Your task to perform on an android device: create a new album in the google photos Image 0: 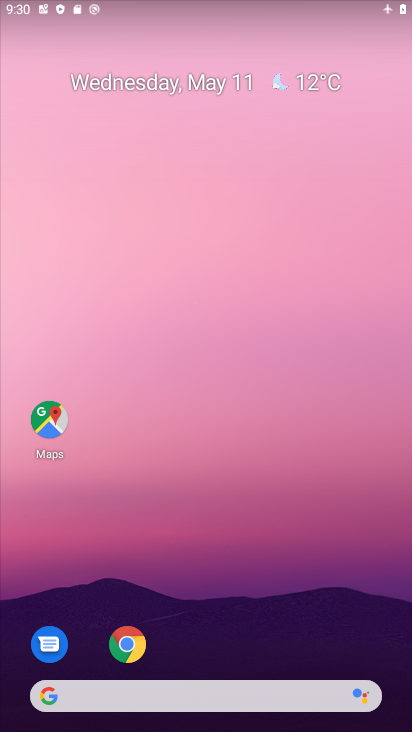
Step 0: drag from (205, 648) to (192, 186)
Your task to perform on an android device: create a new album in the google photos Image 1: 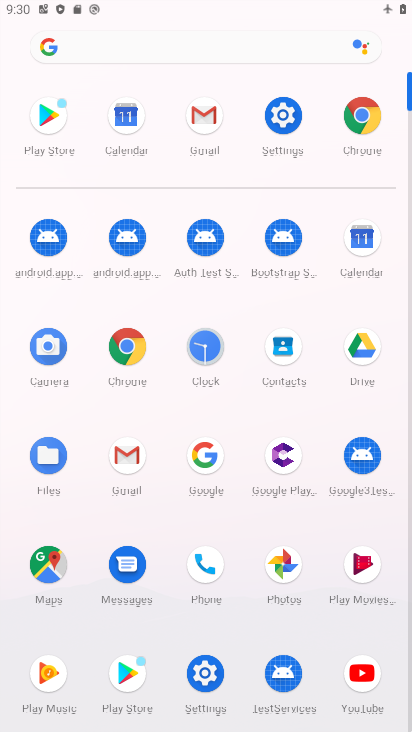
Step 1: click (284, 568)
Your task to perform on an android device: create a new album in the google photos Image 2: 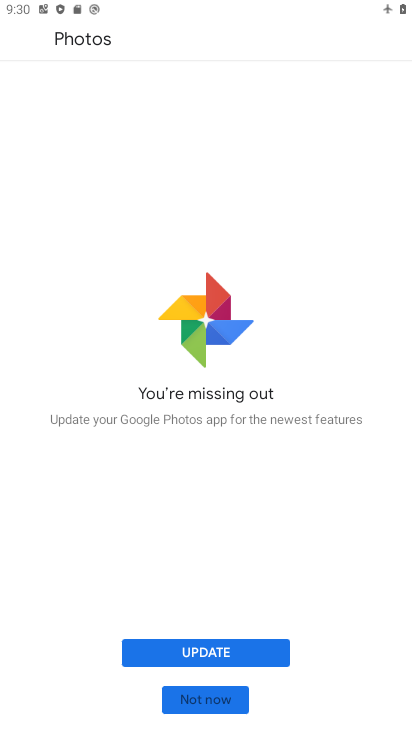
Step 2: click (205, 701)
Your task to perform on an android device: create a new album in the google photos Image 3: 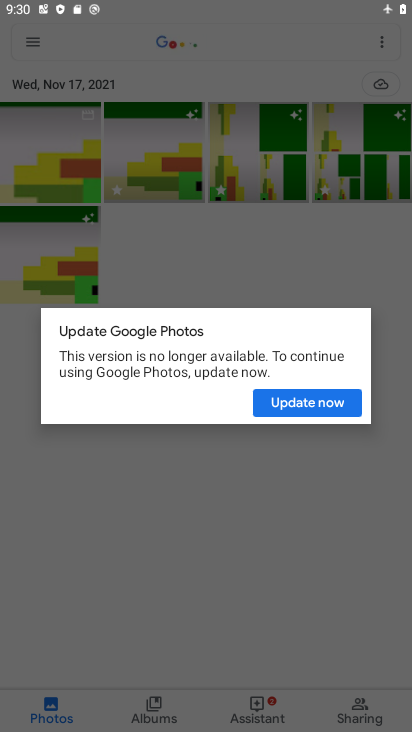
Step 3: click (321, 408)
Your task to perform on an android device: create a new album in the google photos Image 4: 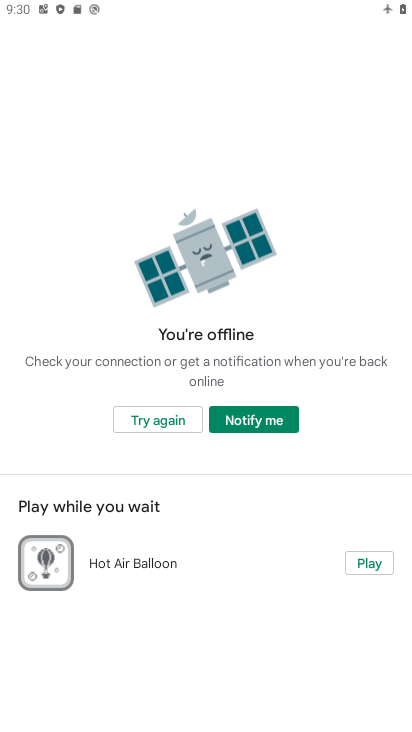
Step 4: press back button
Your task to perform on an android device: create a new album in the google photos Image 5: 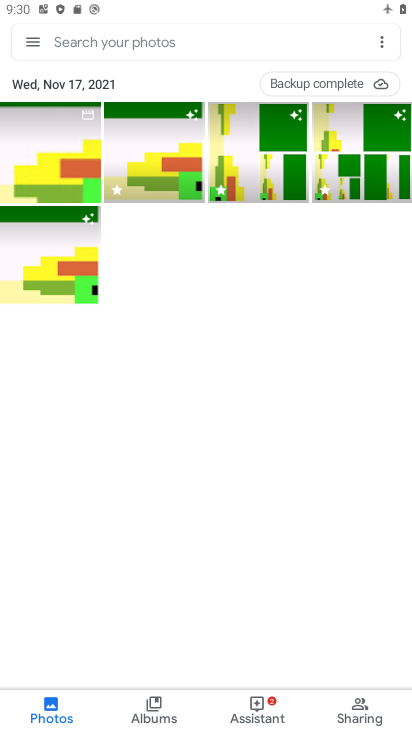
Step 5: click (151, 705)
Your task to perform on an android device: create a new album in the google photos Image 6: 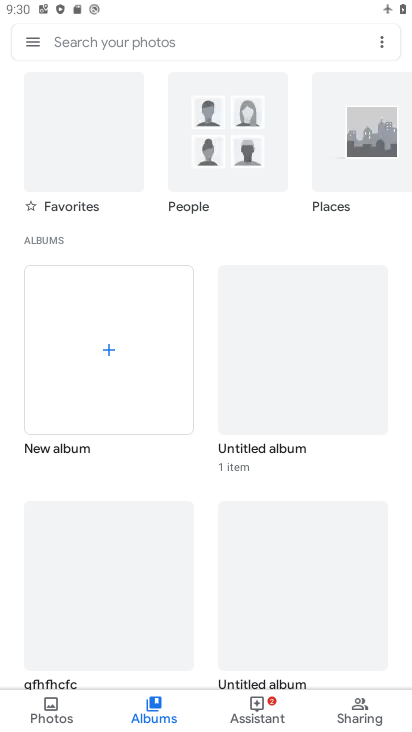
Step 6: click (113, 348)
Your task to perform on an android device: create a new album in the google photos Image 7: 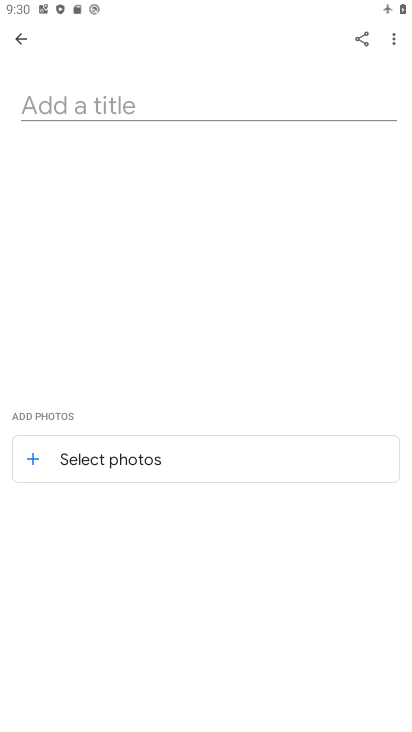
Step 7: click (101, 462)
Your task to perform on an android device: create a new album in the google photos Image 8: 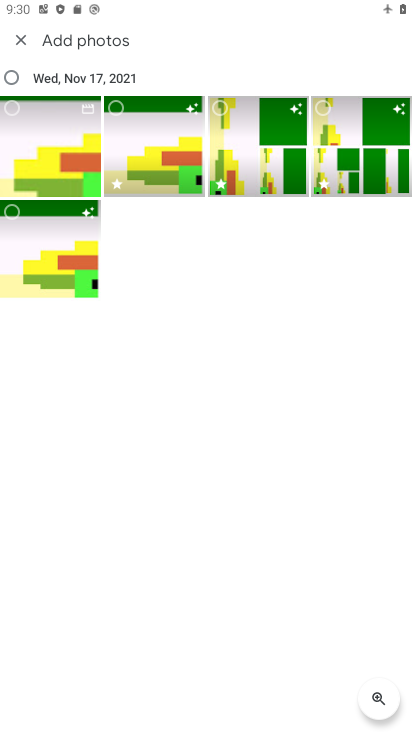
Step 8: click (21, 75)
Your task to perform on an android device: create a new album in the google photos Image 9: 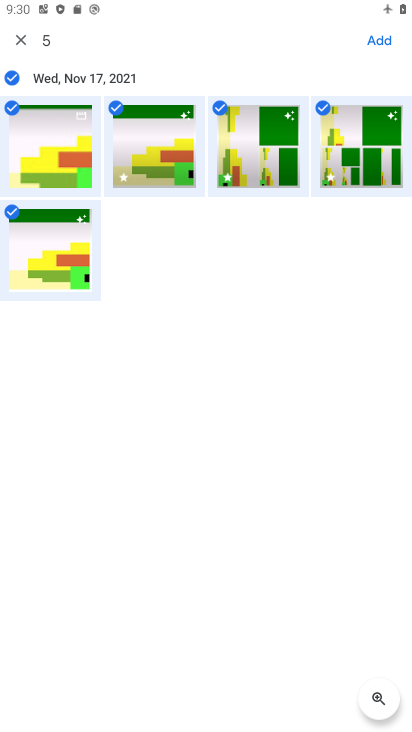
Step 9: click (389, 32)
Your task to perform on an android device: create a new album in the google photos Image 10: 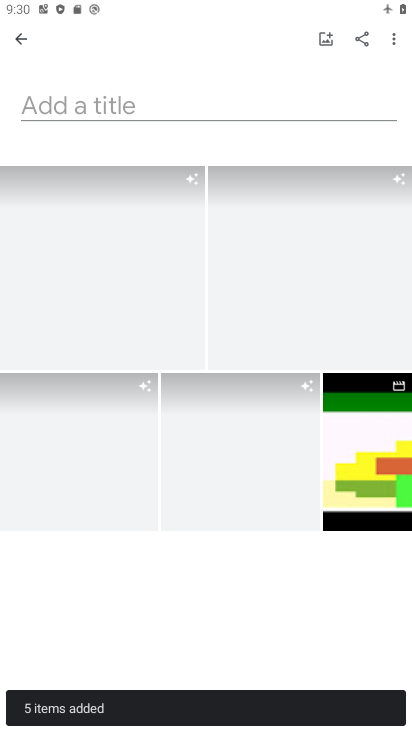
Step 10: click (228, 100)
Your task to perform on an android device: create a new album in the google photos Image 11: 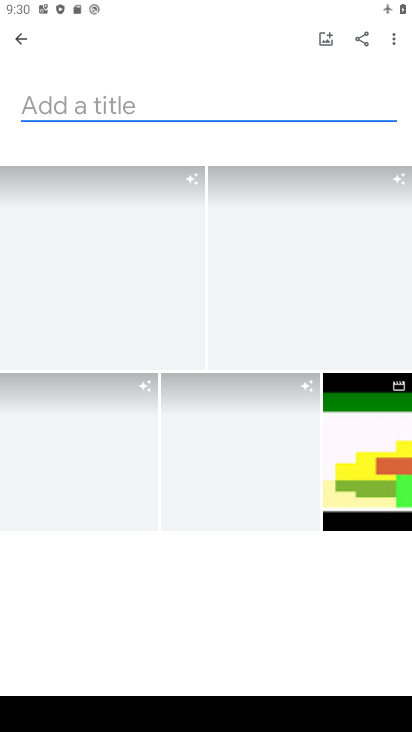
Step 11: type "pink"
Your task to perform on an android device: create a new album in the google photos Image 12: 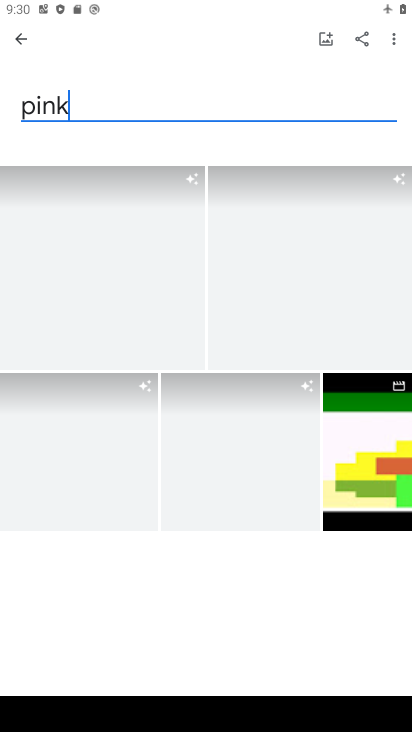
Step 12: click (367, 38)
Your task to perform on an android device: create a new album in the google photos Image 13: 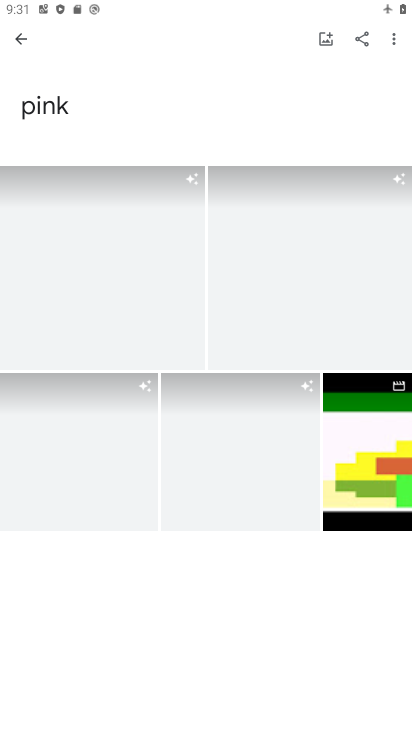
Step 13: click (16, 37)
Your task to perform on an android device: create a new album in the google photos Image 14: 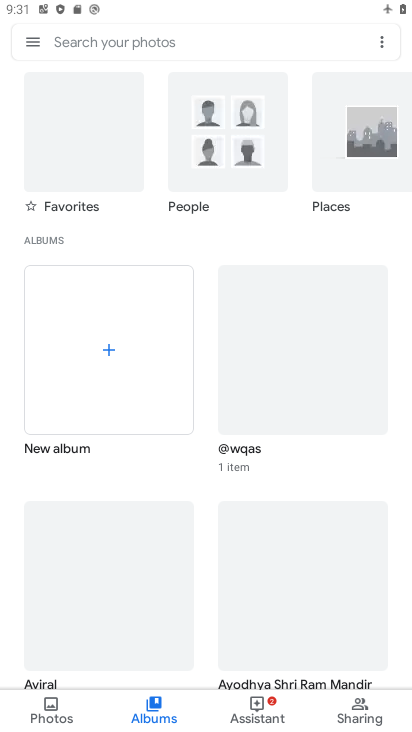
Step 14: click (109, 347)
Your task to perform on an android device: create a new album in the google photos Image 15: 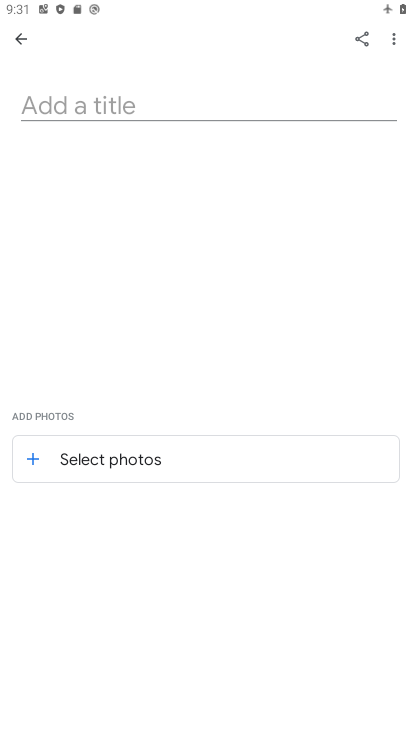
Step 15: click (200, 107)
Your task to perform on an android device: create a new album in the google photos Image 16: 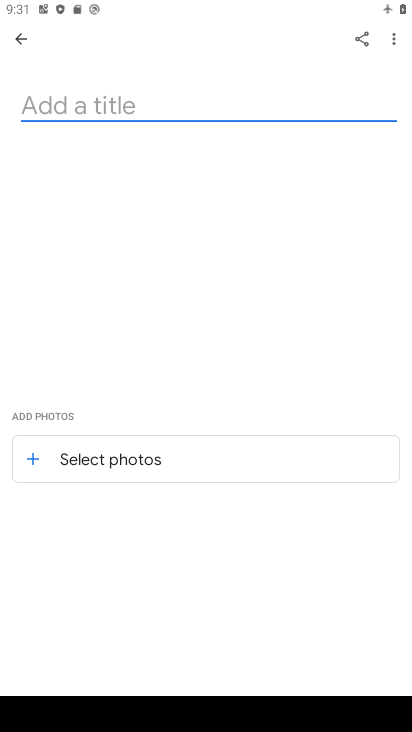
Step 16: type "pink"
Your task to perform on an android device: create a new album in the google photos Image 17: 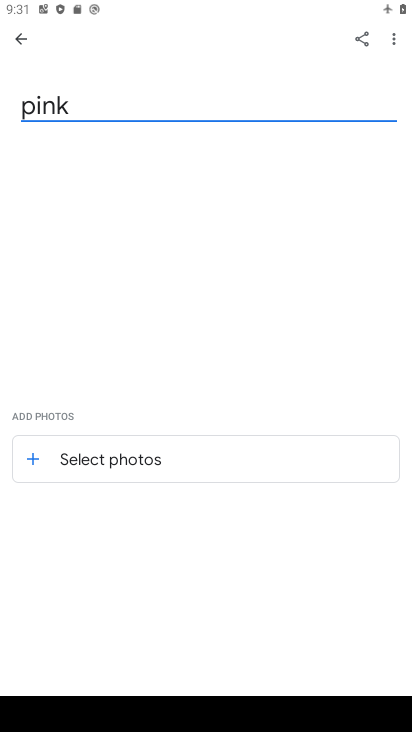
Step 17: click (201, 465)
Your task to perform on an android device: create a new album in the google photos Image 18: 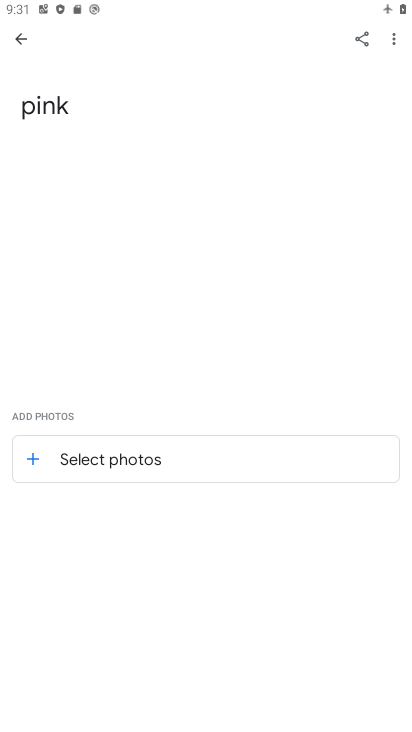
Step 18: click (71, 449)
Your task to perform on an android device: create a new album in the google photos Image 19: 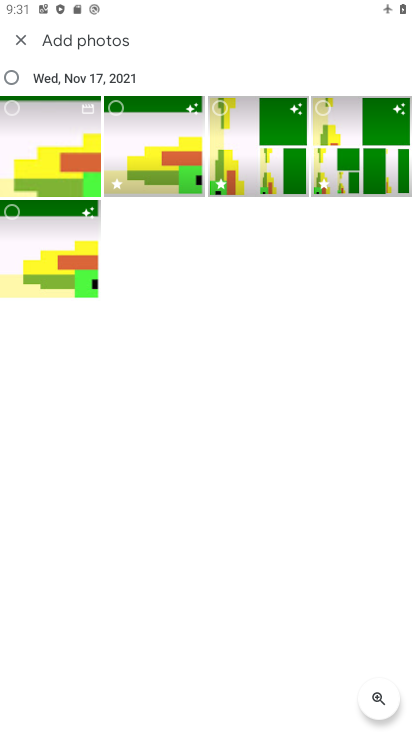
Step 19: click (14, 73)
Your task to perform on an android device: create a new album in the google photos Image 20: 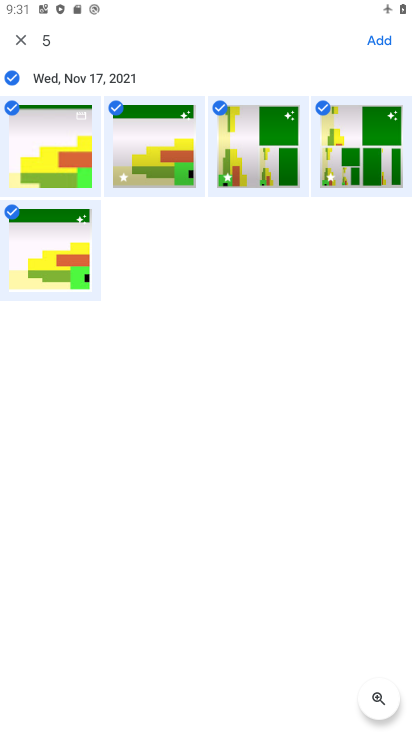
Step 20: click (385, 38)
Your task to perform on an android device: create a new album in the google photos Image 21: 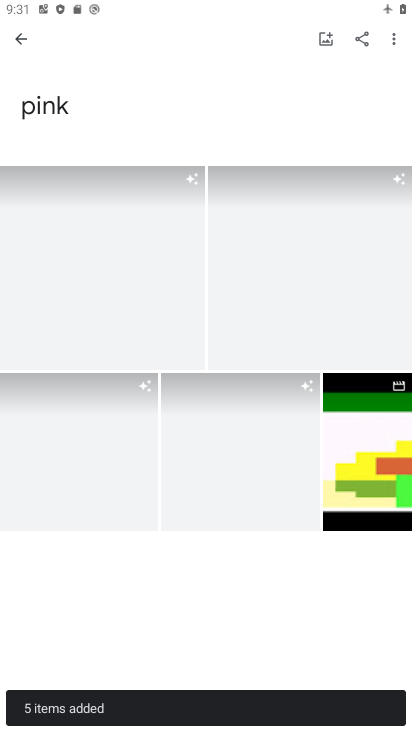
Step 21: click (397, 39)
Your task to perform on an android device: create a new album in the google photos Image 22: 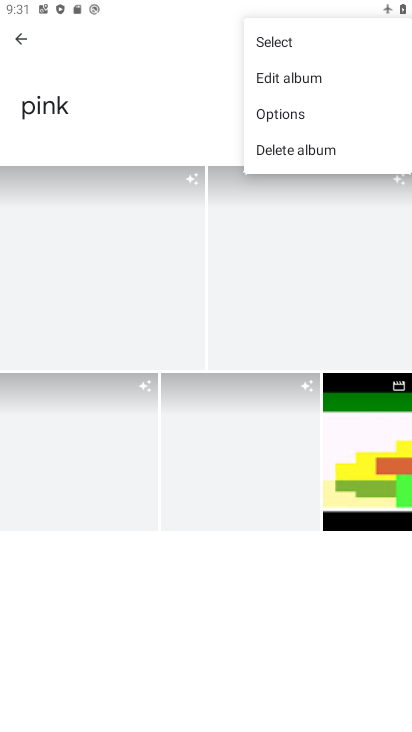
Step 22: click (294, 41)
Your task to perform on an android device: create a new album in the google photos Image 23: 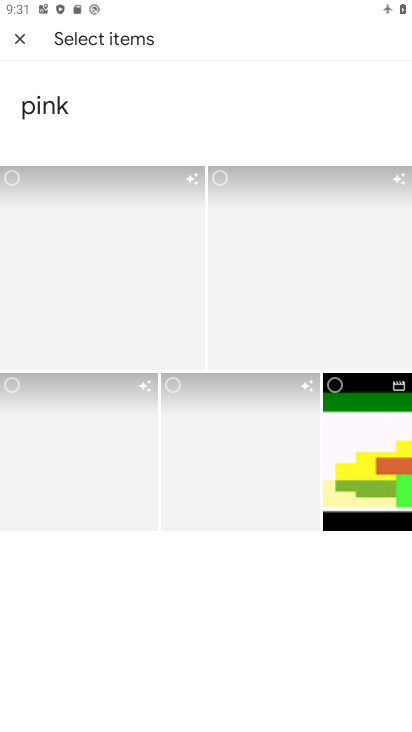
Step 23: click (22, 36)
Your task to perform on an android device: create a new album in the google photos Image 24: 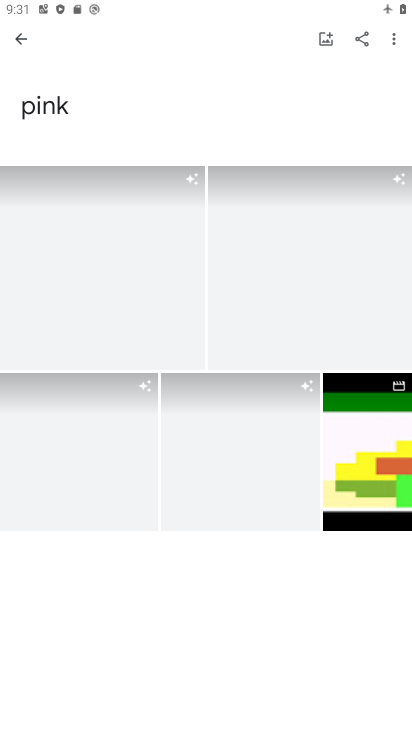
Step 24: click (392, 35)
Your task to perform on an android device: create a new album in the google photos Image 25: 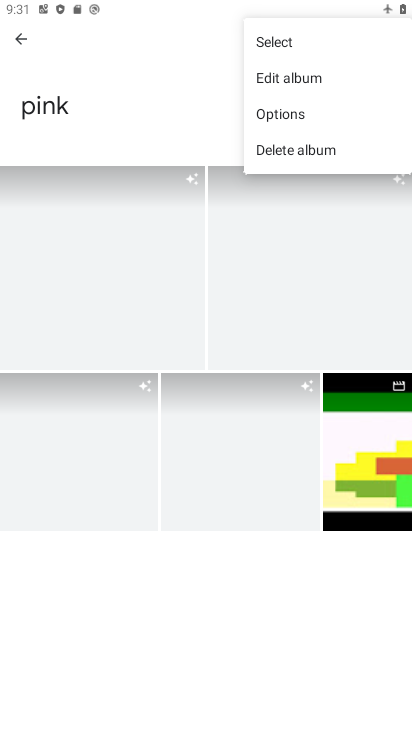
Step 25: click (294, 78)
Your task to perform on an android device: create a new album in the google photos Image 26: 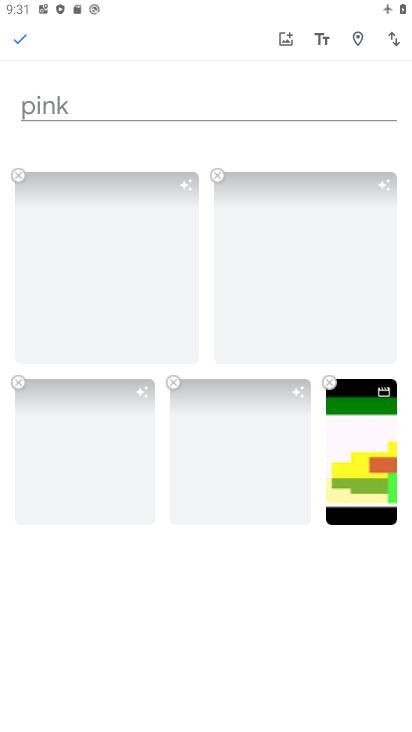
Step 26: click (14, 34)
Your task to perform on an android device: create a new album in the google photos Image 27: 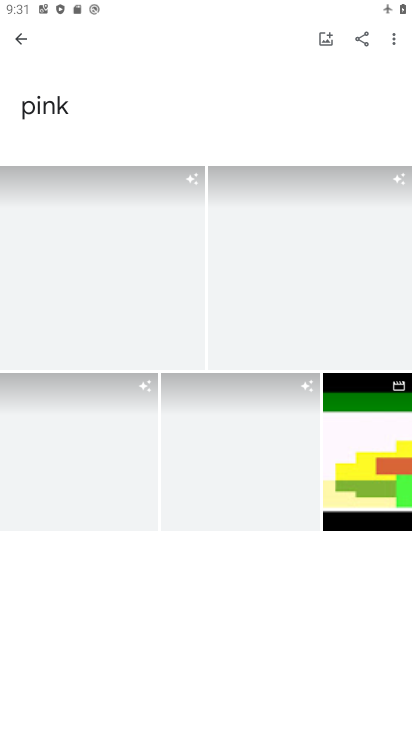
Step 27: task complete